Your task to perform on an android device: turn off picture-in-picture Image 0: 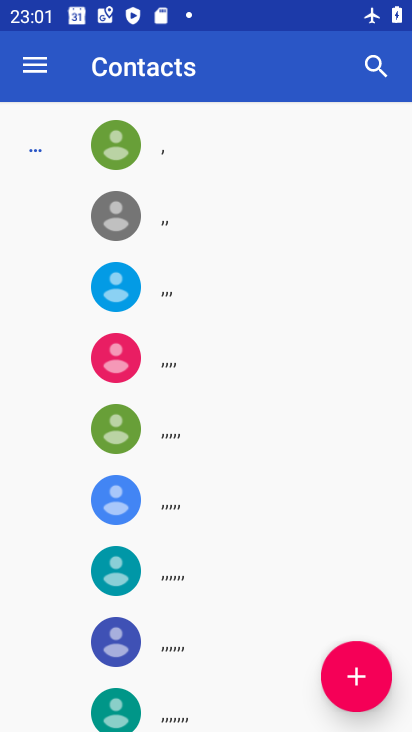
Step 0: press home button
Your task to perform on an android device: turn off picture-in-picture Image 1: 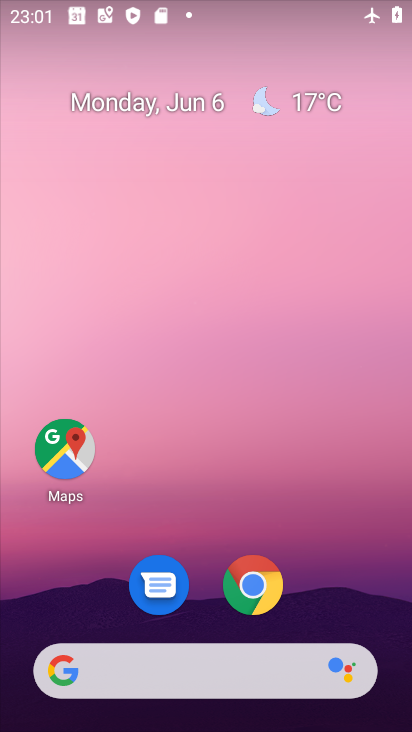
Step 1: click (249, 591)
Your task to perform on an android device: turn off picture-in-picture Image 2: 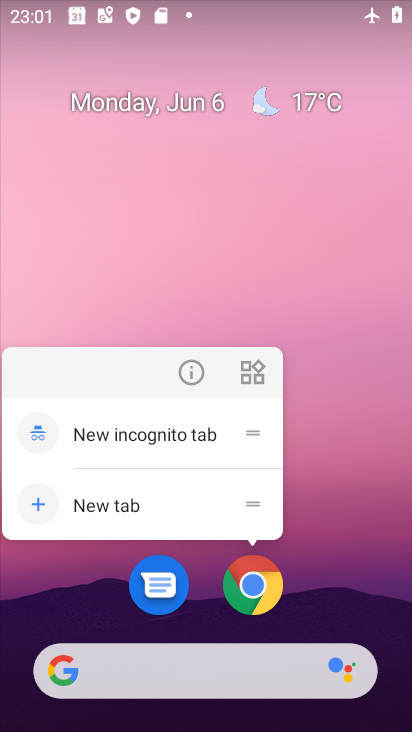
Step 2: click (189, 369)
Your task to perform on an android device: turn off picture-in-picture Image 3: 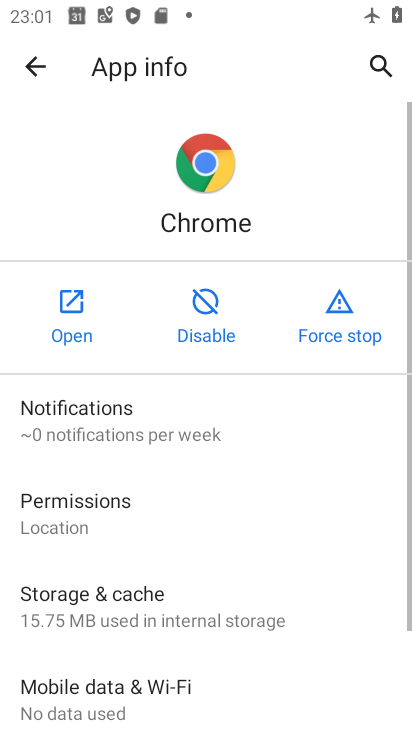
Step 3: drag from (200, 547) to (193, 219)
Your task to perform on an android device: turn off picture-in-picture Image 4: 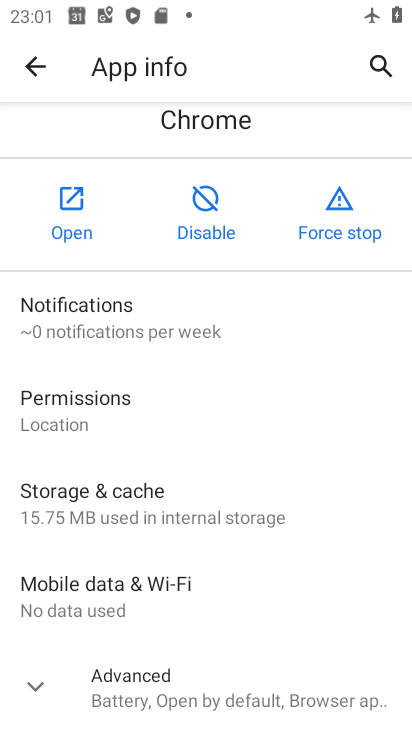
Step 4: click (36, 676)
Your task to perform on an android device: turn off picture-in-picture Image 5: 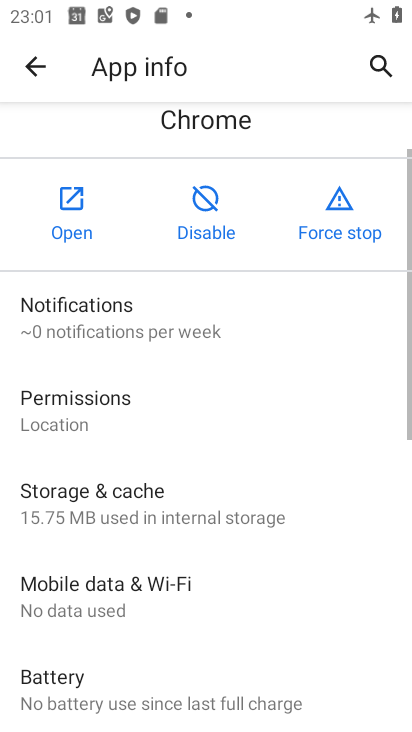
Step 5: drag from (213, 621) to (233, 137)
Your task to perform on an android device: turn off picture-in-picture Image 6: 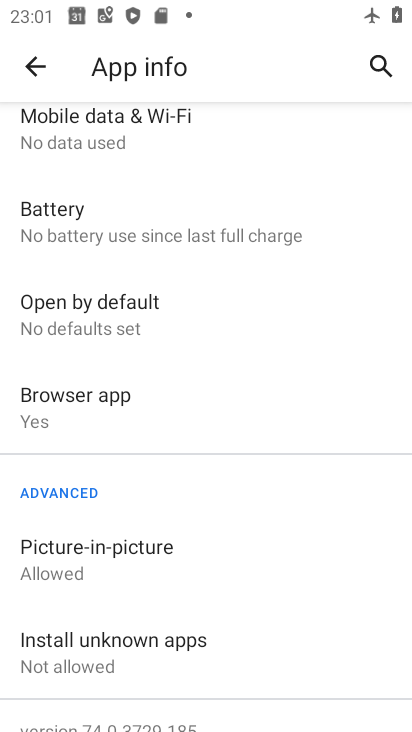
Step 6: click (138, 545)
Your task to perform on an android device: turn off picture-in-picture Image 7: 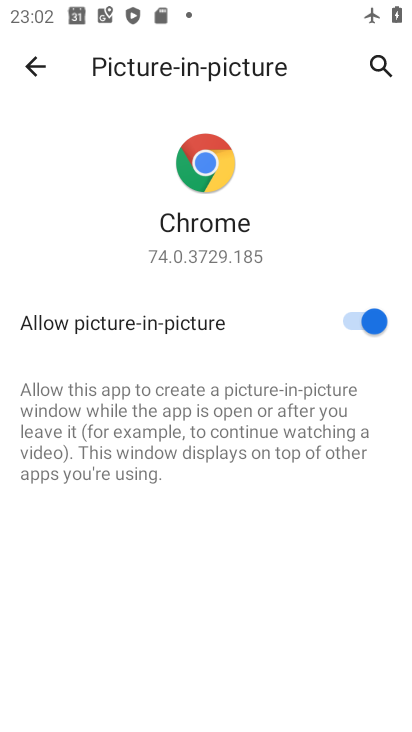
Step 7: click (366, 319)
Your task to perform on an android device: turn off picture-in-picture Image 8: 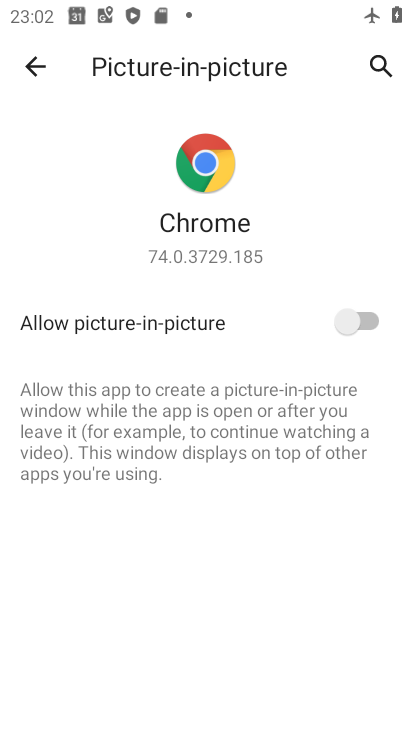
Step 8: task complete